Your task to perform on an android device: Open calendar and show me the second week of next month Image 0: 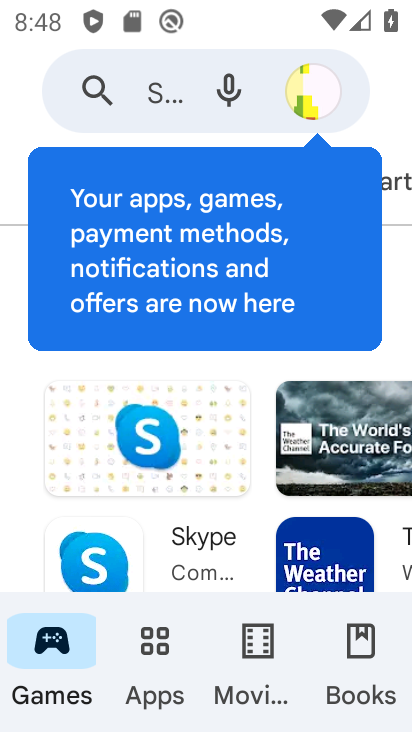
Step 0: press home button
Your task to perform on an android device: Open calendar and show me the second week of next month Image 1: 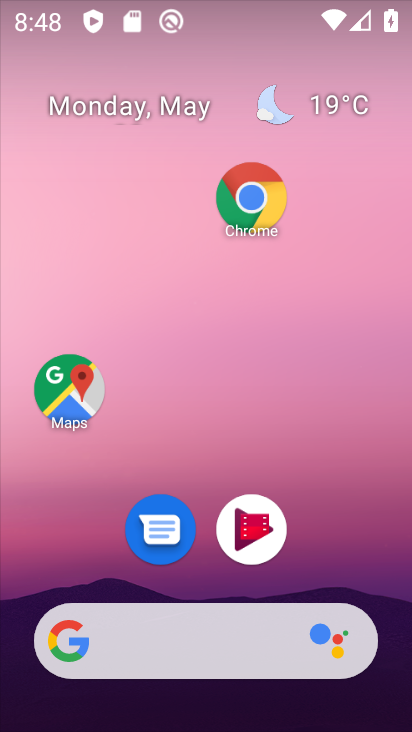
Step 1: drag from (296, 560) to (269, 22)
Your task to perform on an android device: Open calendar and show me the second week of next month Image 2: 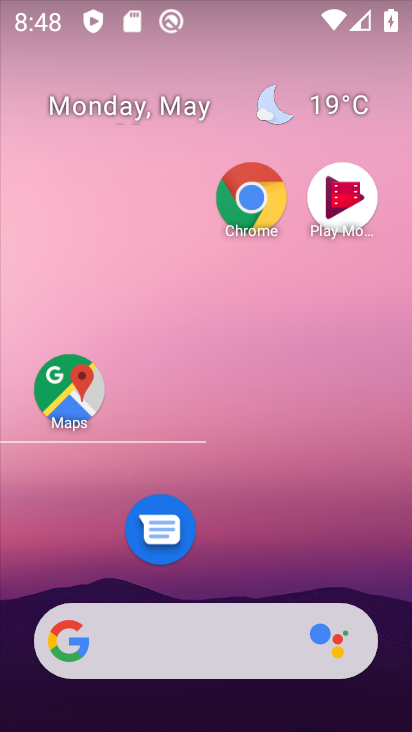
Step 2: click (158, 105)
Your task to perform on an android device: Open calendar and show me the second week of next month Image 3: 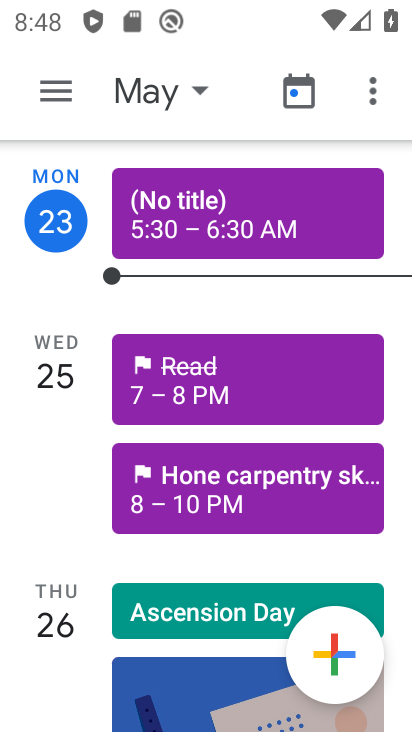
Step 3: click (167, 99)
Your task to perform on an android device: Open calendar and show me the second week of next month Image 4: 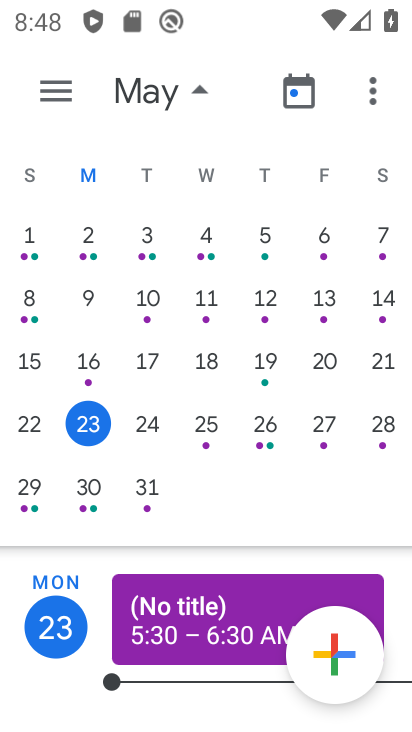
Step 4: drag from (344, 292) to (19, 286)
Your task to perform on an android device: Open calendar and show me the second week of next month Image 5: 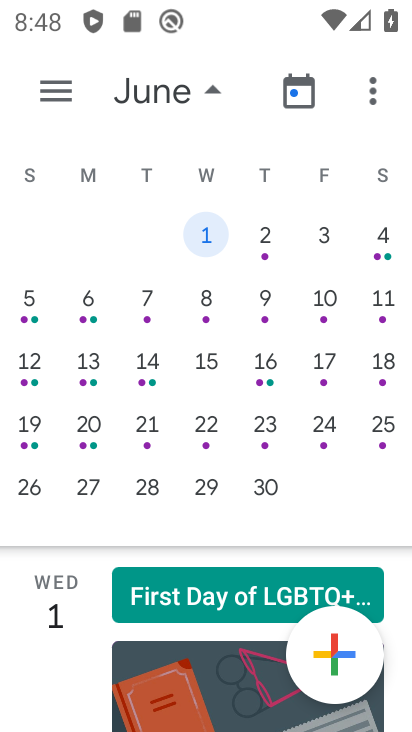
Step 5: click (25, 371)
Your task to perform on an android device: Open calendar and show me the second week of next month Image 6: 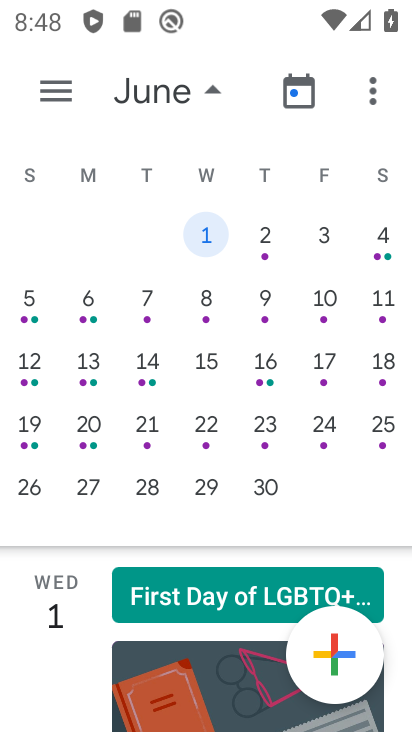
Step 6: click (60, 99)
Your task to perform on an android device: Open calendar and show me the second week of next month Image 7: 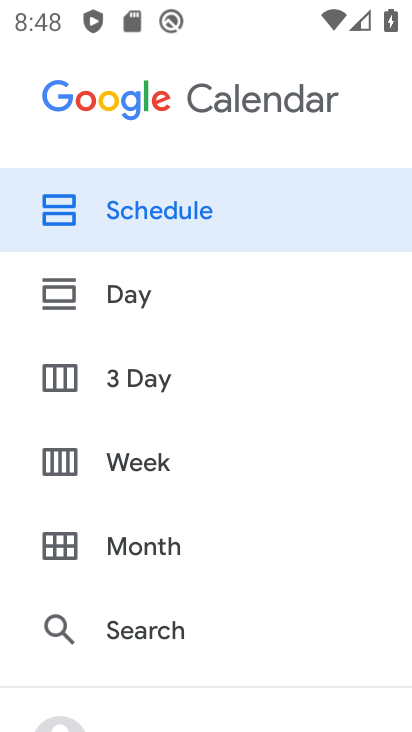
Step 7: click (146, 475)
Your task to perform on an android device: Open calendar and show me the second week of next month Image 8: 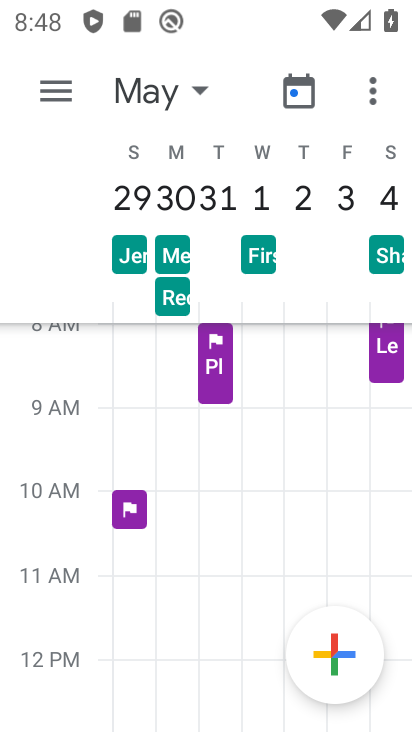
Step 8: click (132, 102)
Your task to perform on an android device: Open calendar and show me the second week of next month Image 9: 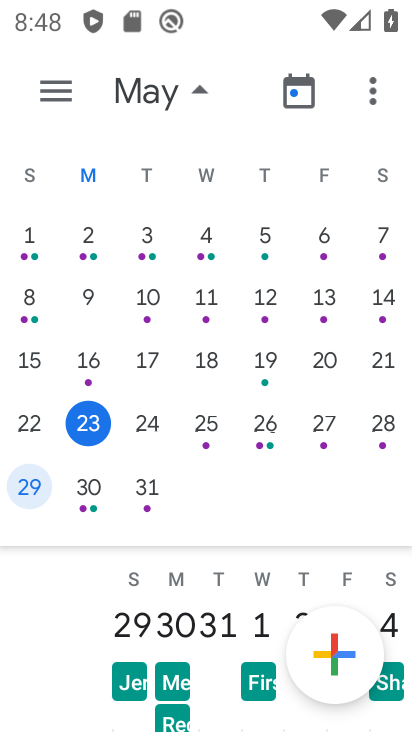
Step 9: drag from (308, 254) to (25, 269)
Your task to perform on an android device: Open calendar and show me the second week of next month Image 10: 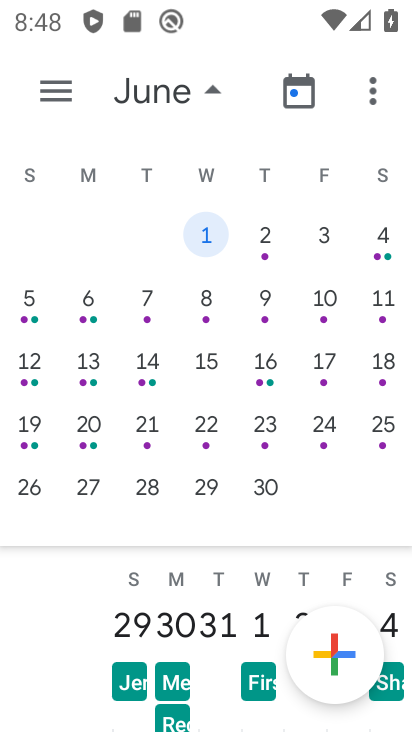
Step 10: click (31, 373)
Your task to perform on an android device: Open calendar and show me the second week of next month Image 11: 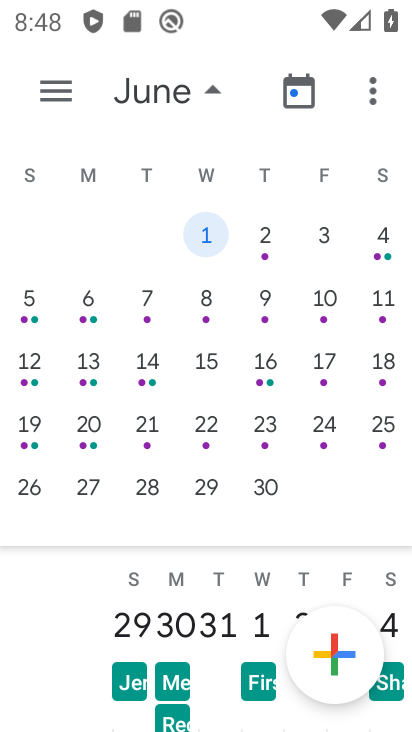
Step 11: click (37, 371)
Your task to perform on an android device: Open calendar and show me the second week of next month Image 12: 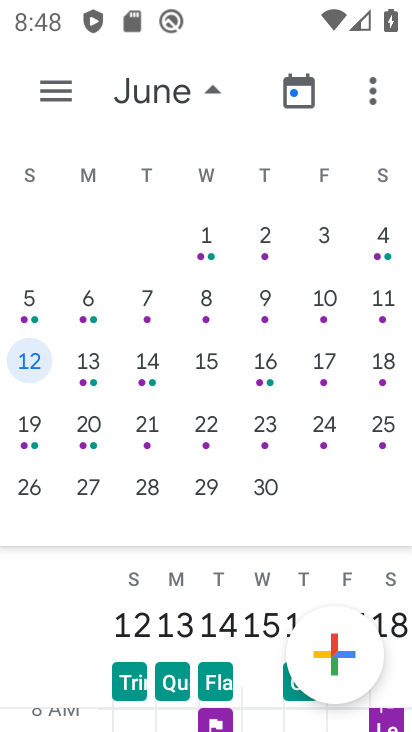
Step 12: task complete